Your task to perform on an android device: Go to Maps Image 0: 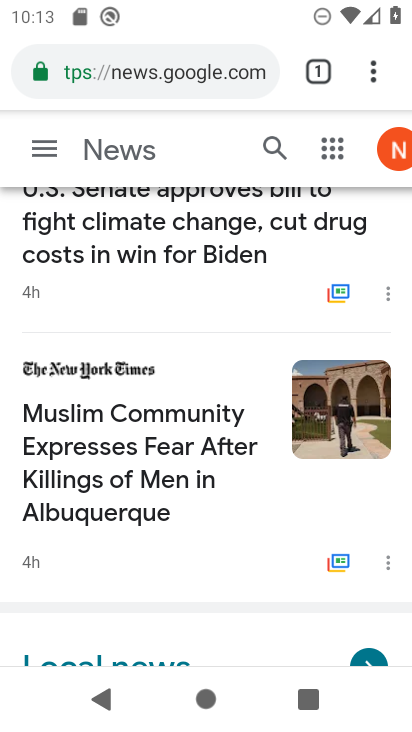
Step 0: press home button
Your task to perform on an android device: Go to Maps Image 1: 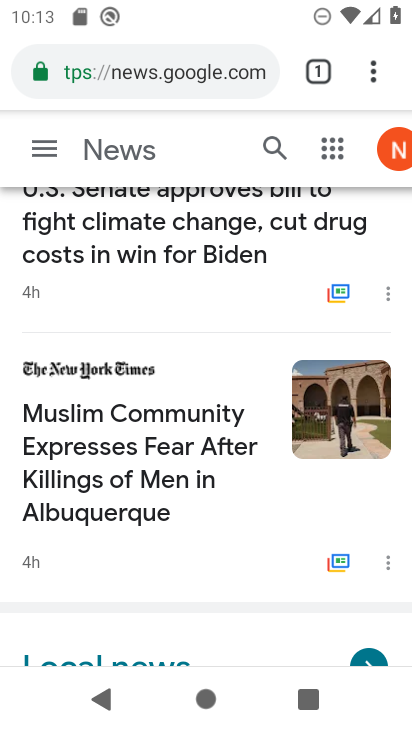
Step 1: press home button
Your task to perform on an android device: Go to Maps Image 2: 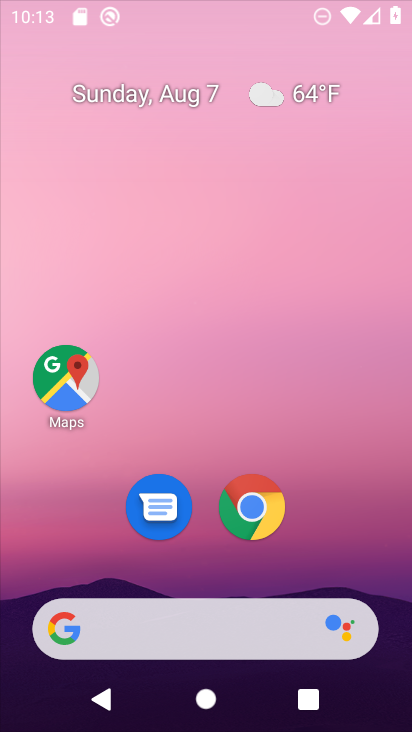
Step 2: press home button
Your task to perform on an android device: Go to Maps Image 3: 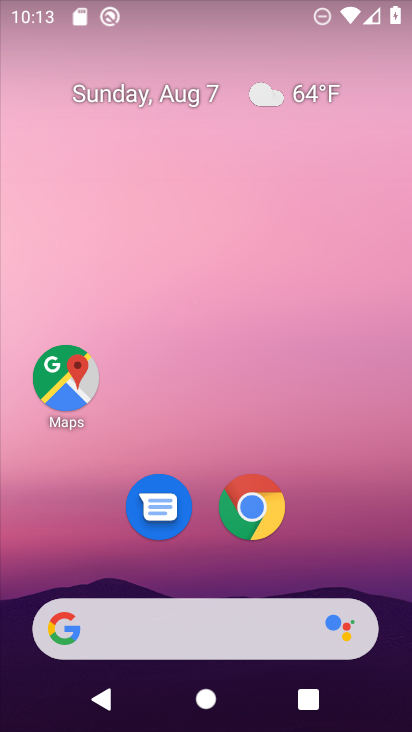
Step 3: press home button
Your task to perform on an android device: Go to Maps Image 4: 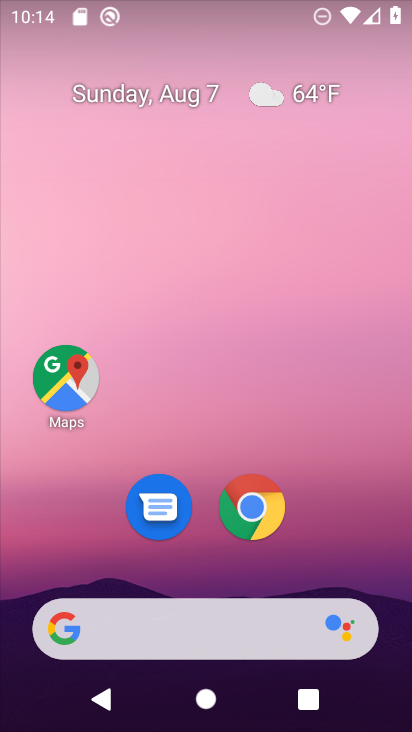
Step 4: drag from (349, 530) to (364, 4)
Your task to perform on an android device: Go to Maps Image 5: 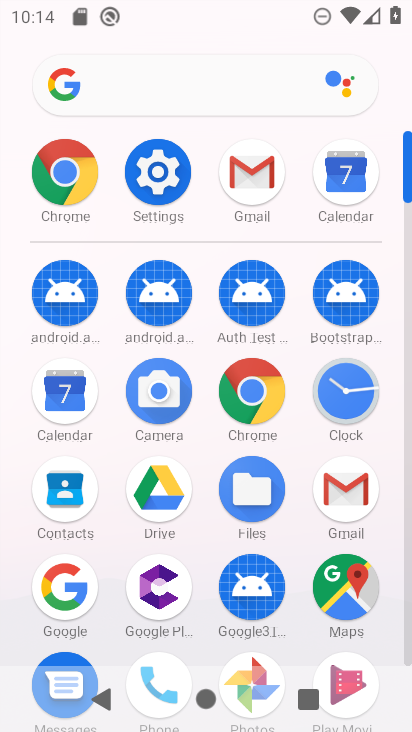
Step 5: click (343, 594)
Your task to perform on an android device: Go to Maps Image 6: 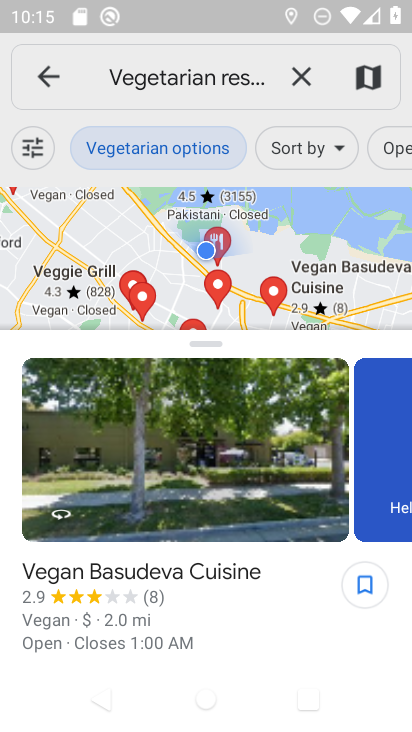
Step 6: task complete